Your task to perform on an android device: check battery use Image 0: 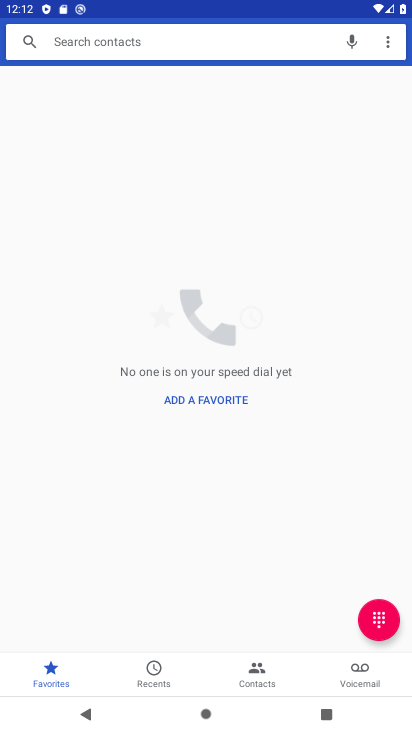
Step 0: press home button
Your task to perform on an android device: check battery use Image 1: 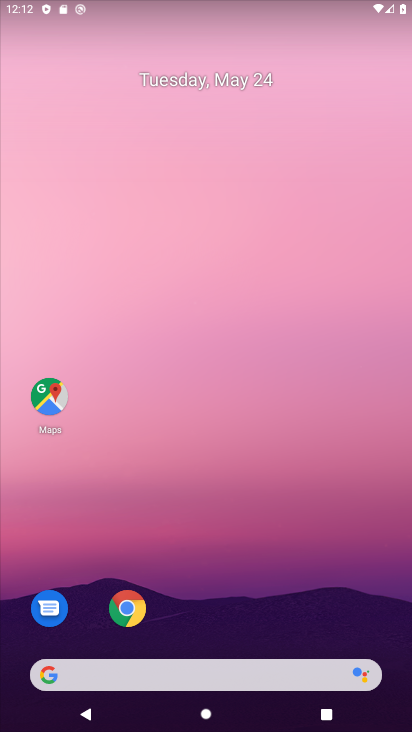
Step 1: drag from (199, 437) to (225, 10)
Your task to perform on an android device: check battery use Image 2: 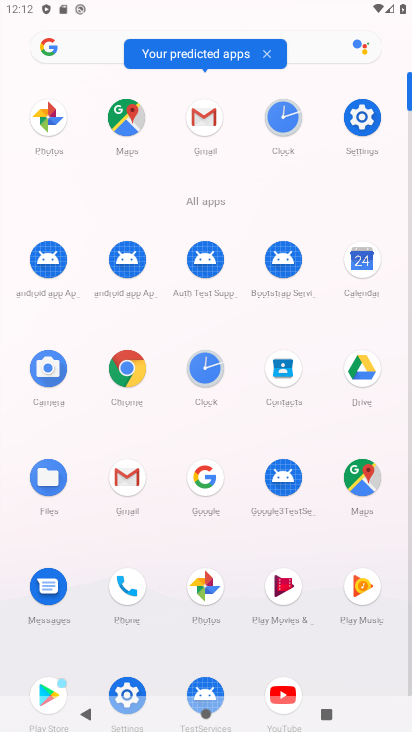
Step 2: click (362, 113)
Your task to perform on an android device: check battery use Image 3: 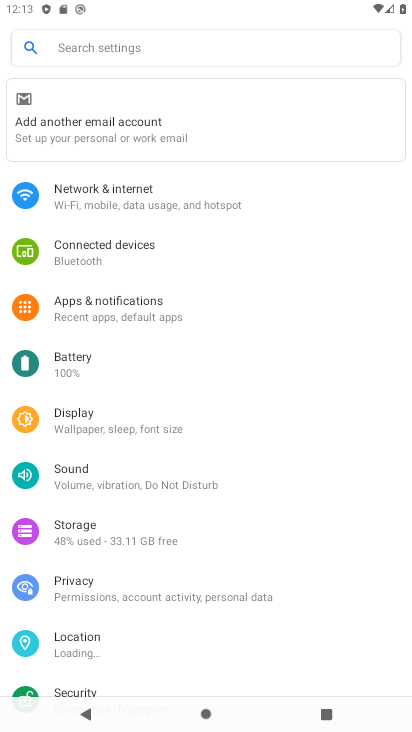
Step 3: click (58, 366)
Your task to perform on an android device: check battery use Image 4: 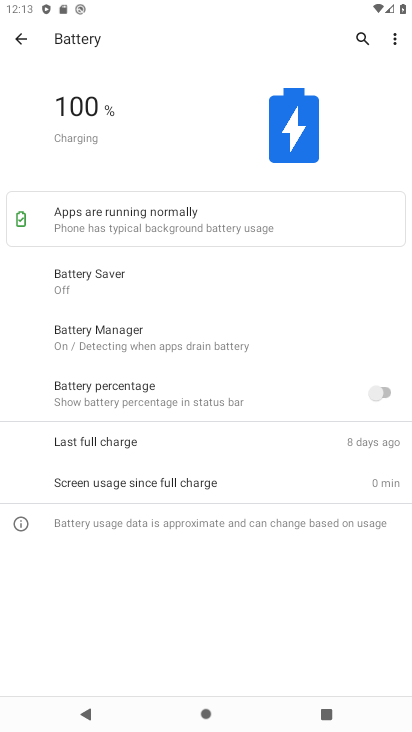
Step 4: task complete